Your task to perform on an android device: change the clock display to analog Image 0: 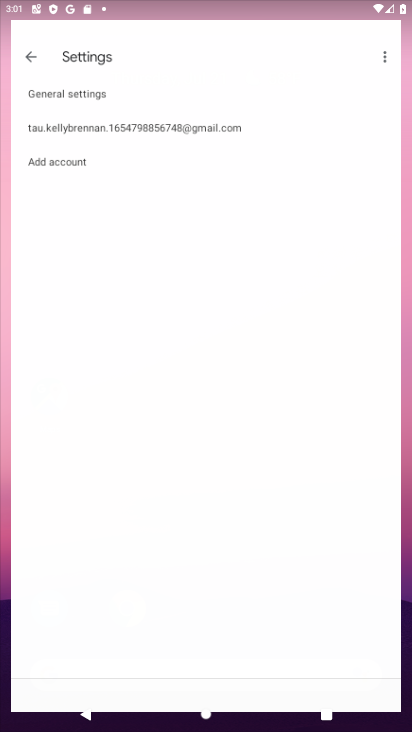
Step 0: press home button
Your task to perform on an android device: change the clock display to analog Image 1: 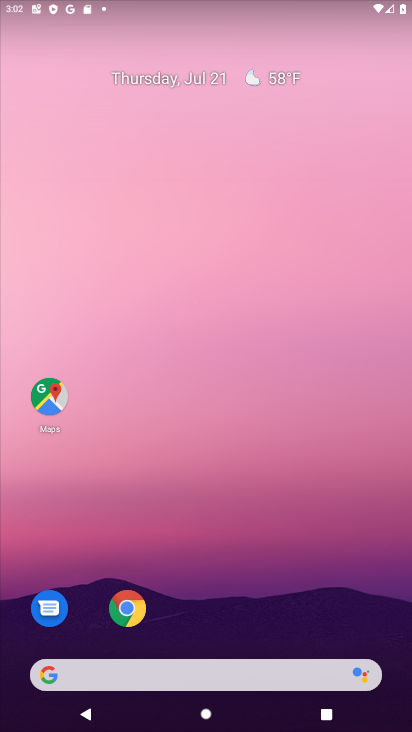
Step 1: drag from (204, 636) to (250, 102)
Your task to perform on an android device: change the clock display to analog Image 2: 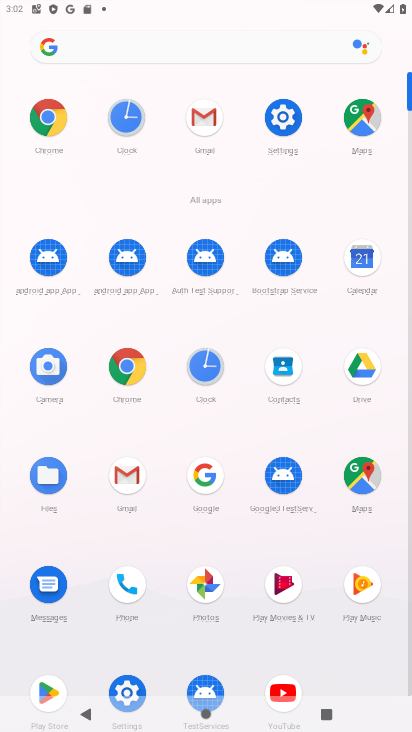
Step 2: click (202, 358)
Your task to perform on an android device: change the clock display to analog Image 3: 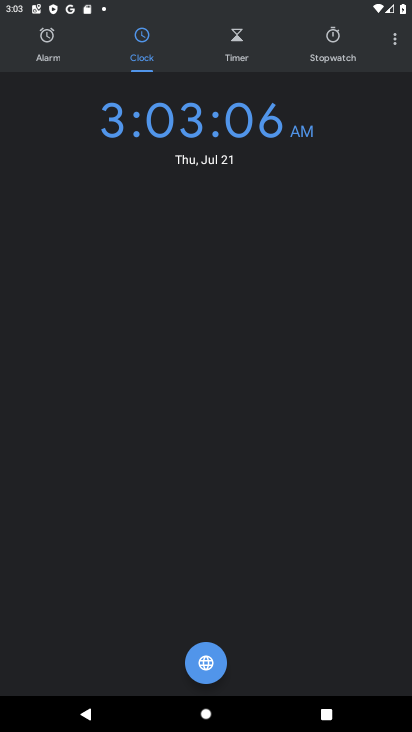
Step 3: click (395, 40)
Your task to perform on an android device: change the clock display to analog Image 4: 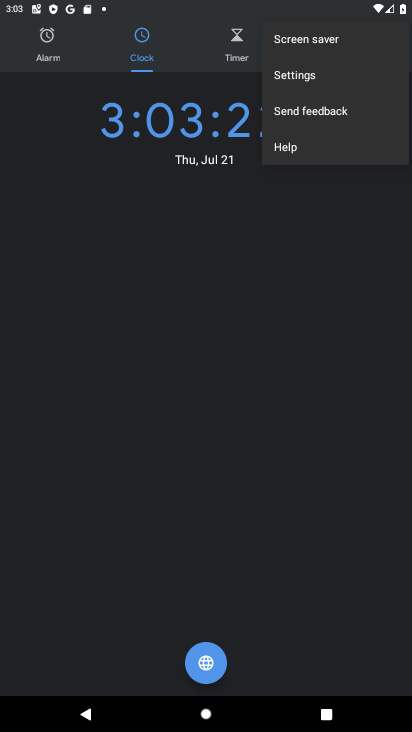
Step 4: click (318, 70)
Your task to perform on an android device: change the clock display to analog Image 5: 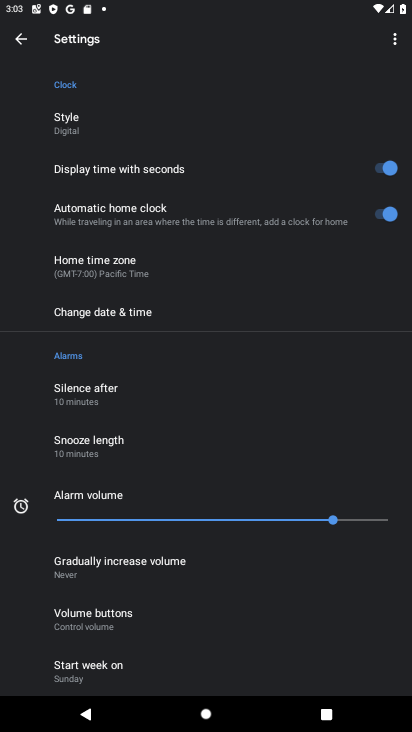
Step 5: click (76, 116)
Your task to perform on an android device: change the clock display to analog Image 6: 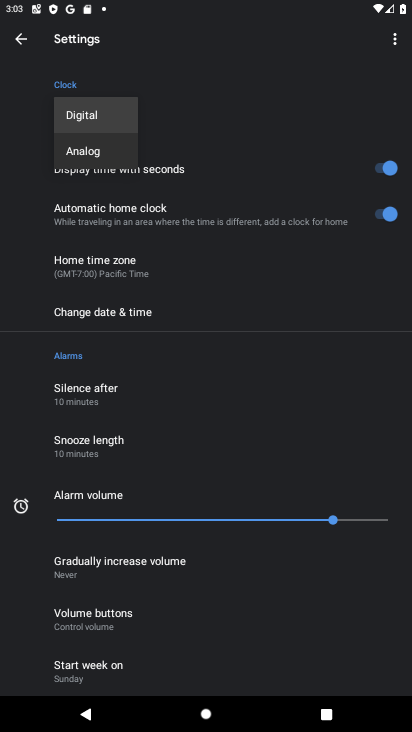
Step 6: click (113, 157)
Your task to perform on an android device: change the clock display to analog Image 7: 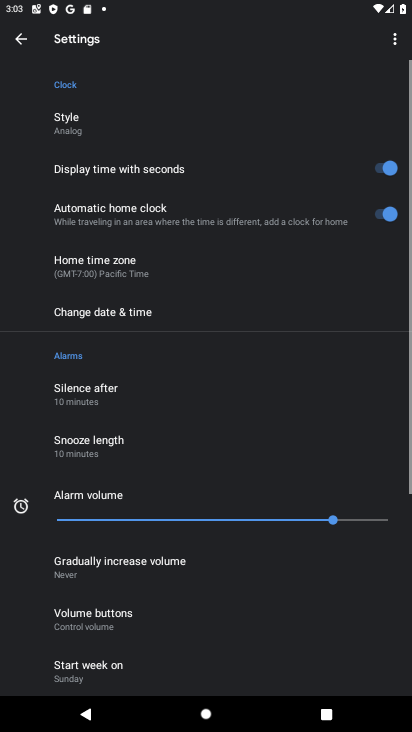
Step 7: task complete